Your task to perform on an android device: turn on javascript in the chrome app Image 0: 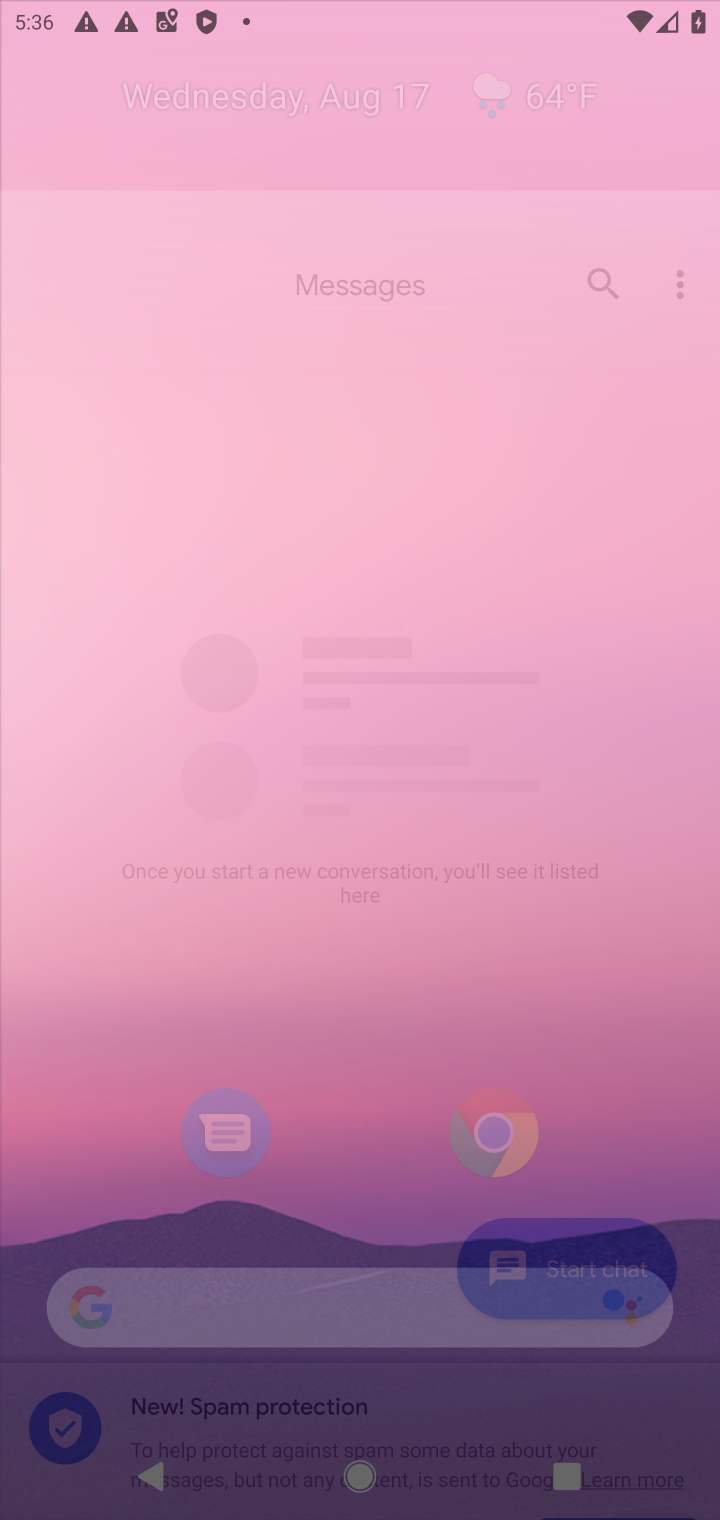
Step 0: press home button
Your task to perform on an android device: turn on javascript in the chrome app Image 1: 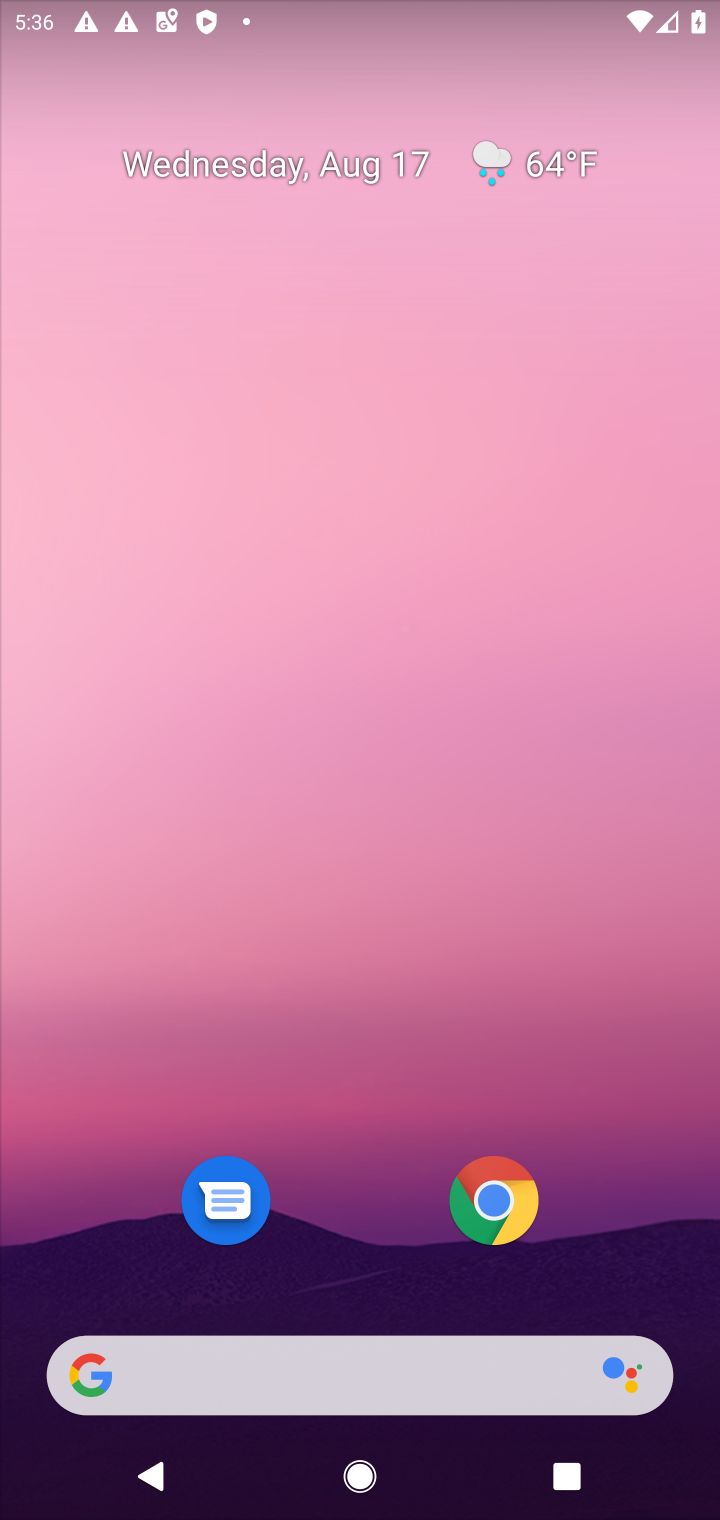
Step 1: drag from (359, 1037) to (359, 102)
Your task to perform on an android device: turn on javascript in the chrome app Image 2: 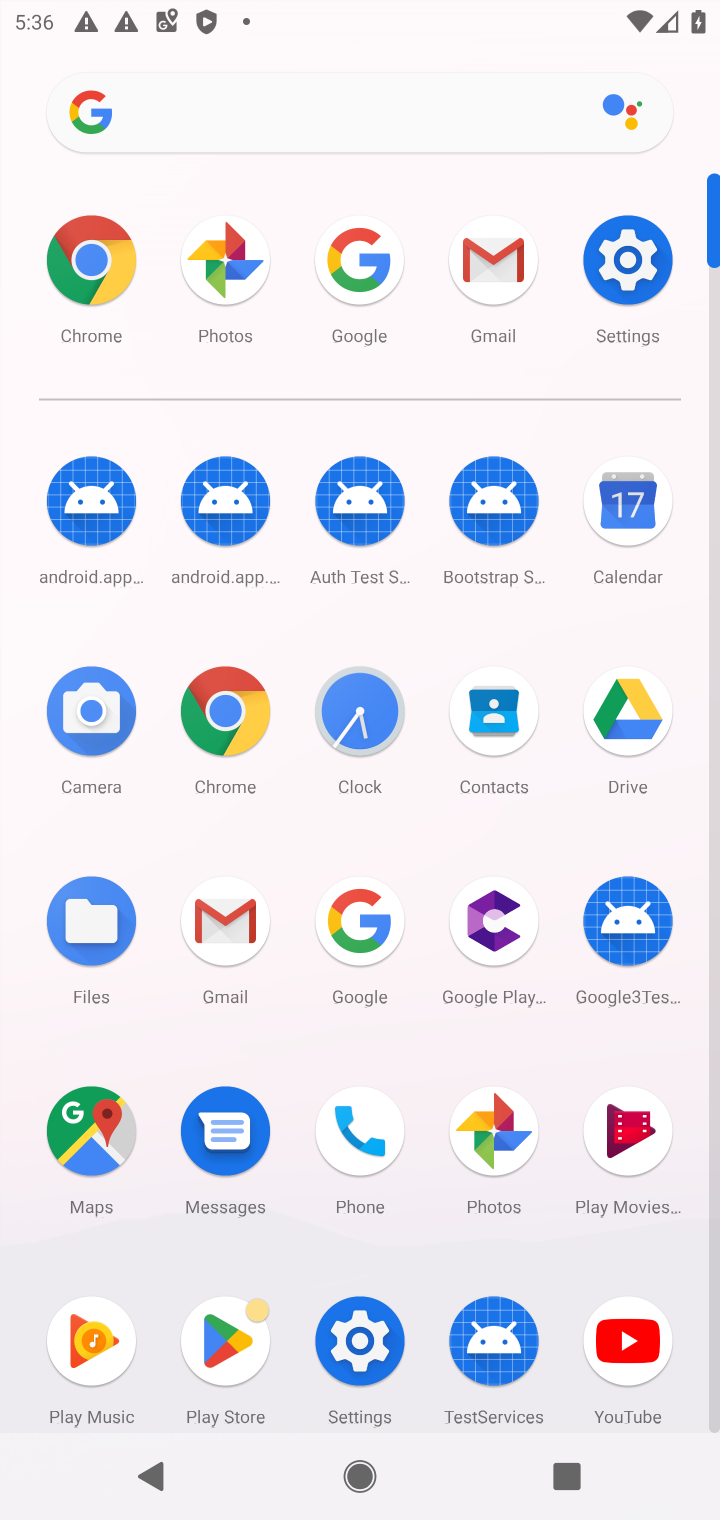
Step 2: click (234, 716)
Your task to perform on an android device: turn on javascript in the chrome app Image 3: 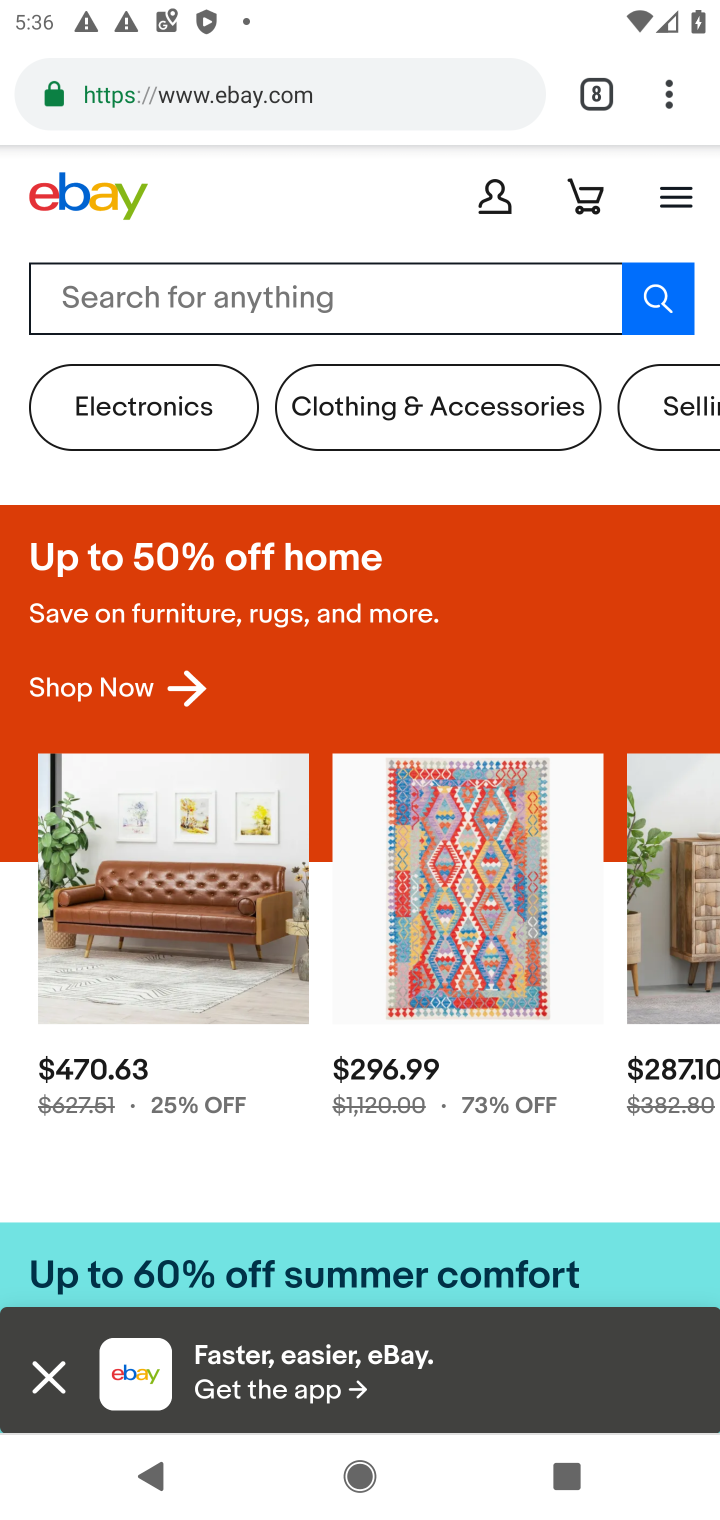
Step 3: click (669, 110)
Your task to perform on an android device: turn on javascript in the chrome app Image 4: 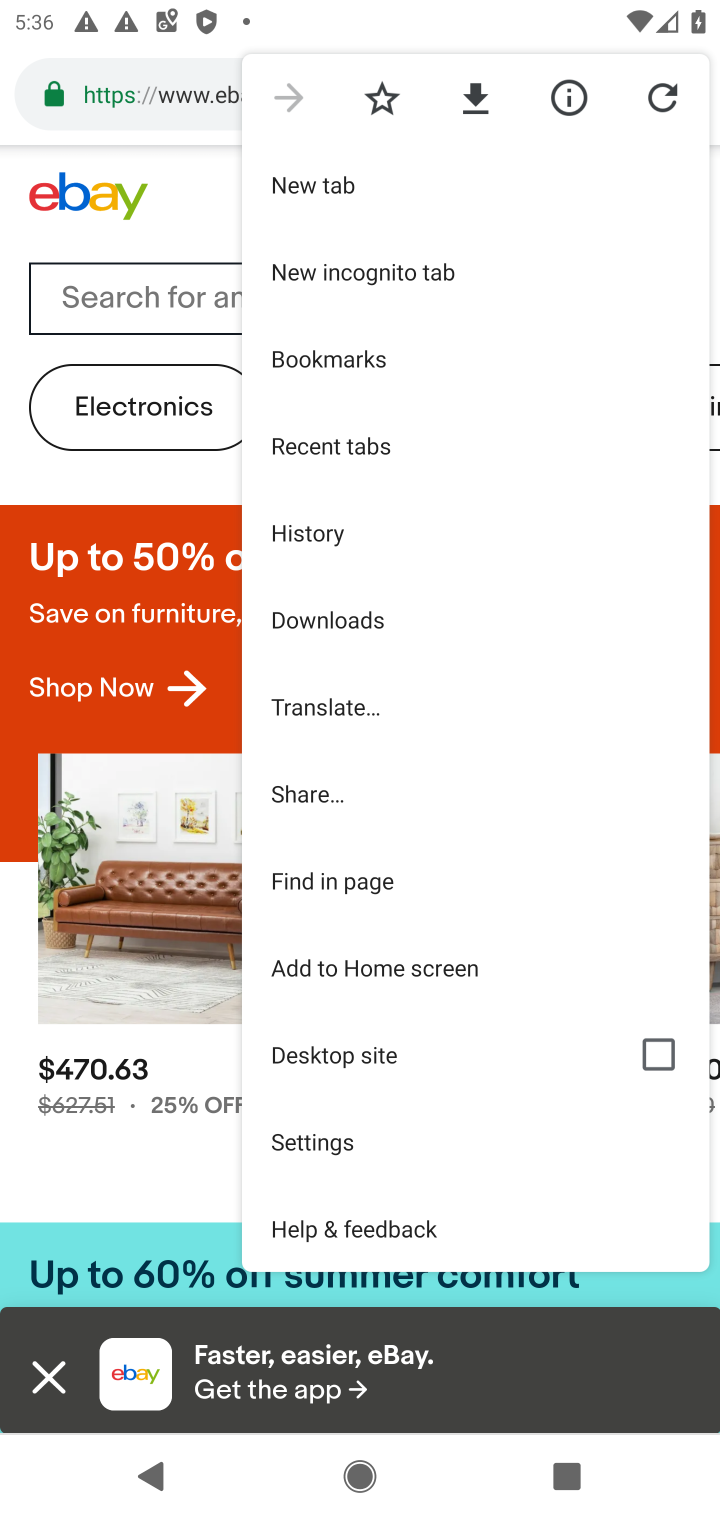
Step 4: click (323, 1138)
Your task to perform on an android device: turn on javascript in the chrome app Image 5: 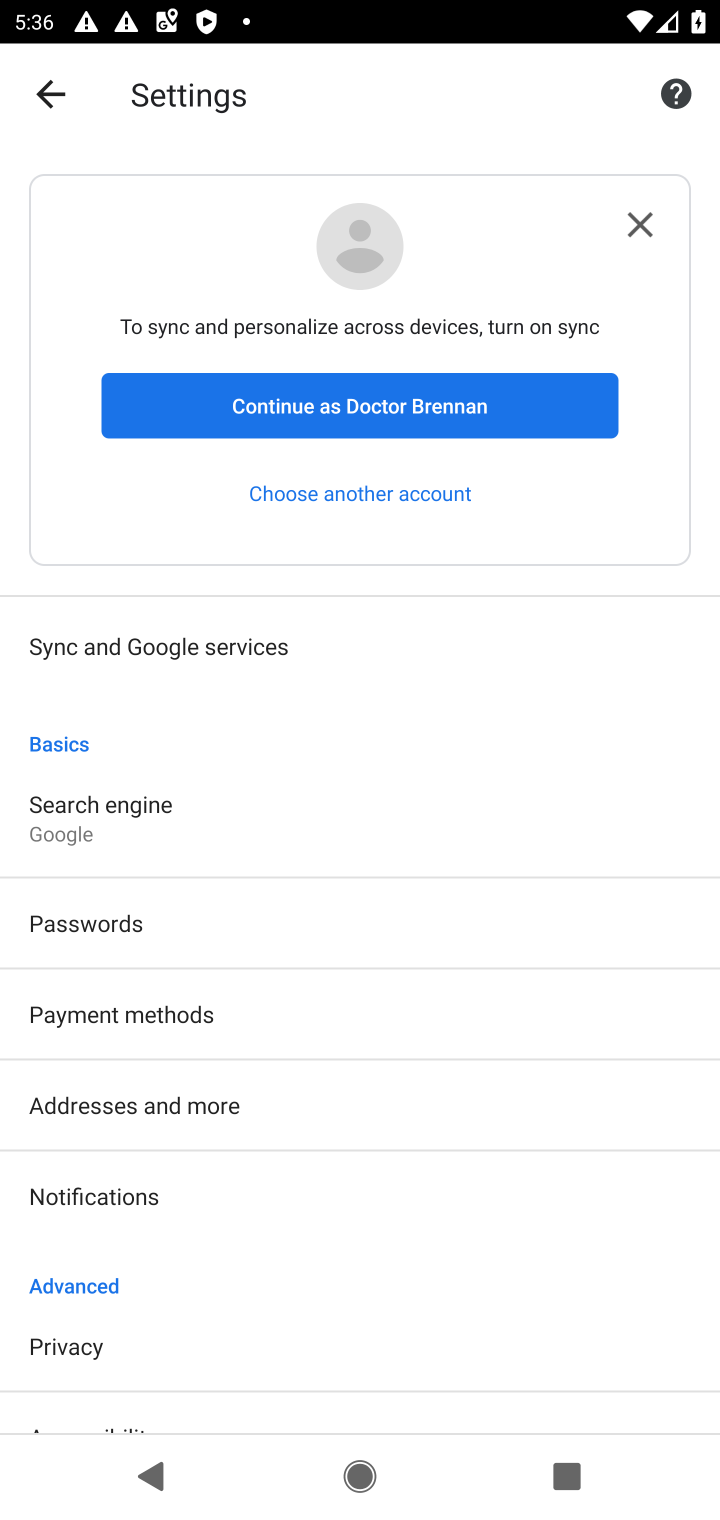
Step 5: drag from (121, 1304) to (170, 577)
Your task to perform on an android device: turn on javascript in the chrome app Image 6: 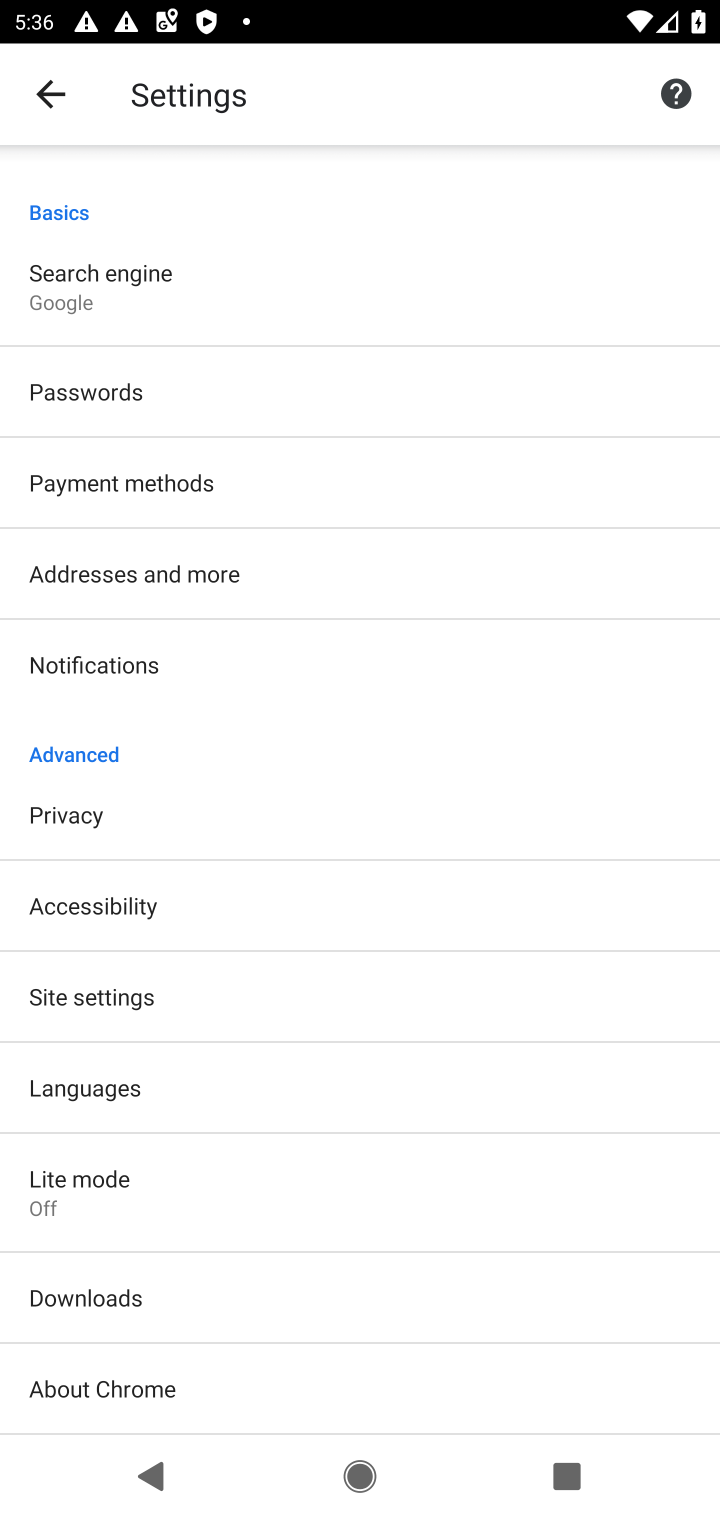
Step 6: click (76, 993)
Your task to perform on an android device: turn on javascript in the chrome app Image 7: 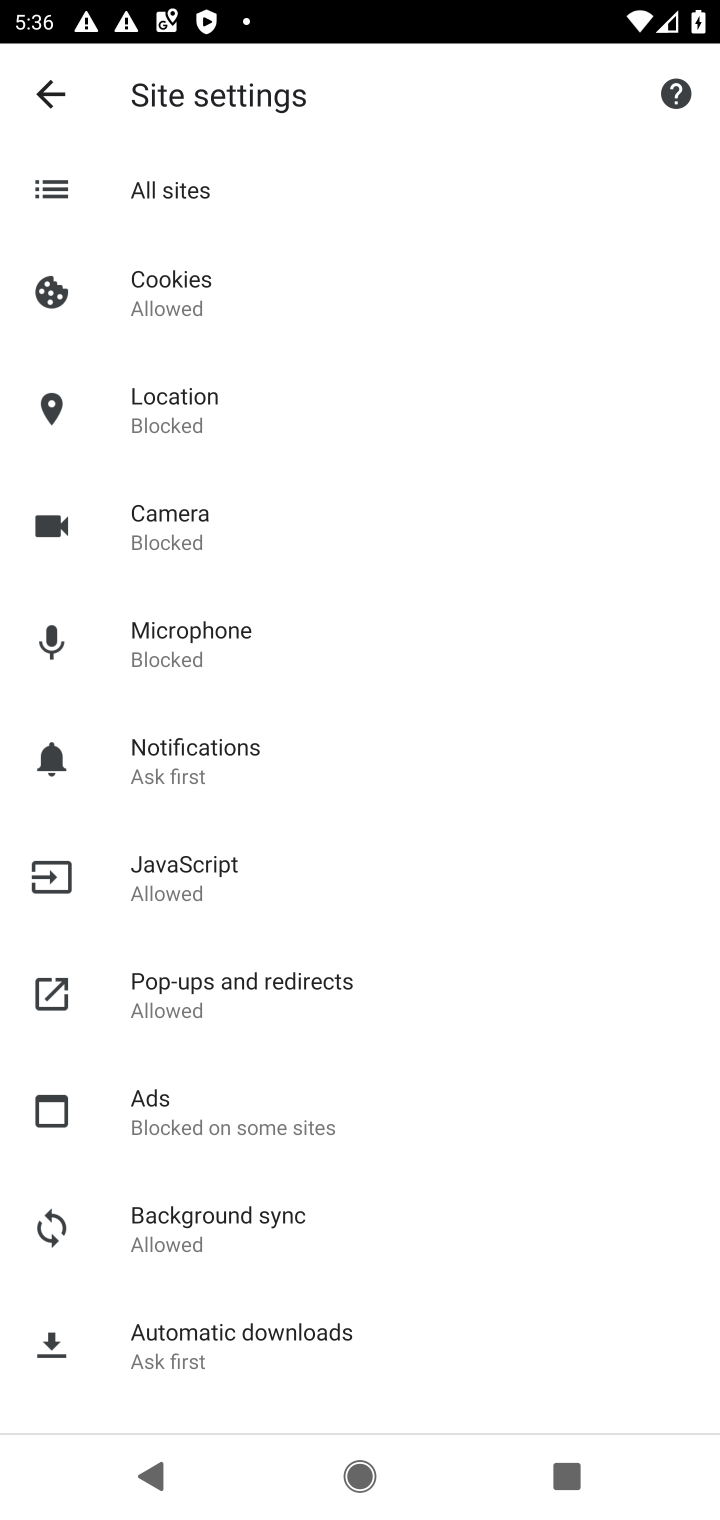
Step 7: click (181, 877)
Your task to perform on an android device: turn on javascript in the chrome app Image 8: 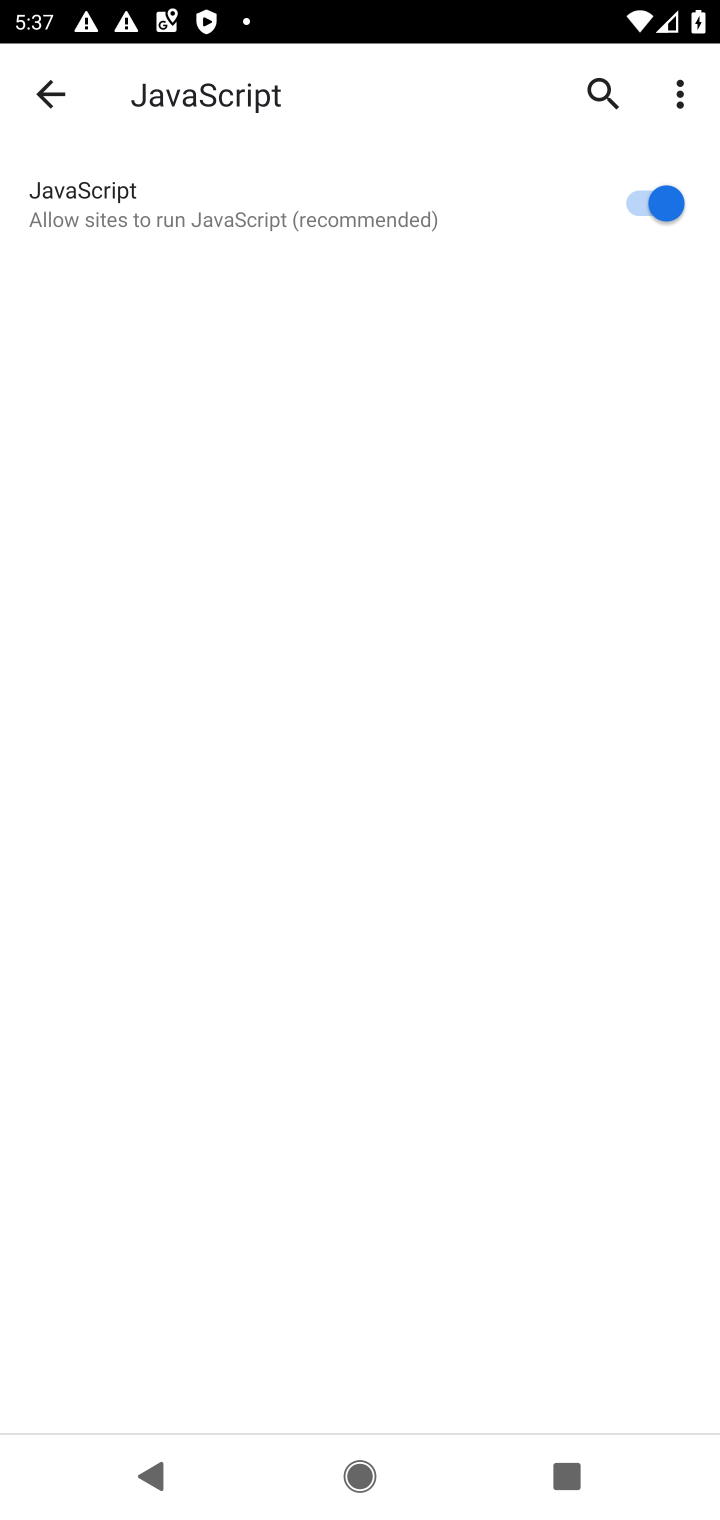
Step 8: task complete